Your task to perform on an android device: toggle show notifications on the lock screen Image 0: 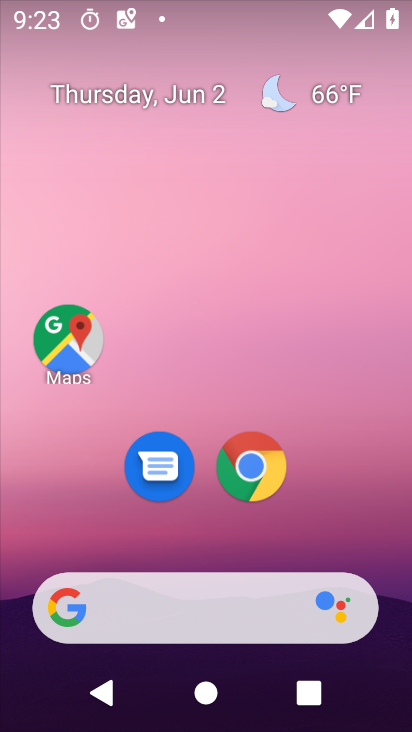
Step 0: press home button
Your task to perform on an android device: toggle show notifications on the lock screen Image 1: 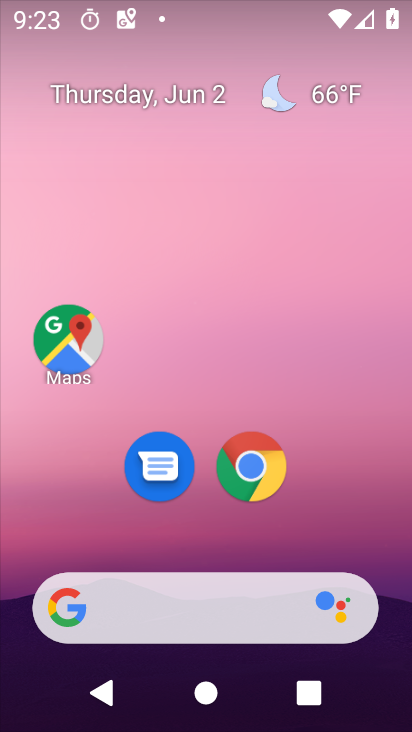
Step 1: drag from (23, 614) to (344, 60)
Your task to perform on an android device: toggle show notifications on the lock screen Image 2: 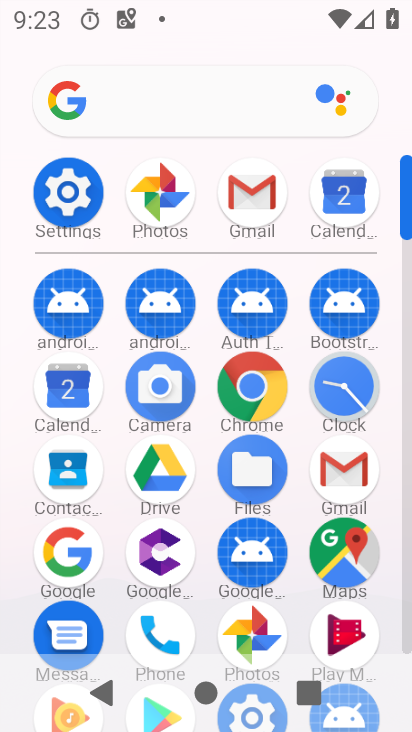
Step 2: click (80, 185)
Your task to perform on an android device: toggle show notifications on the lock screen Image 3: 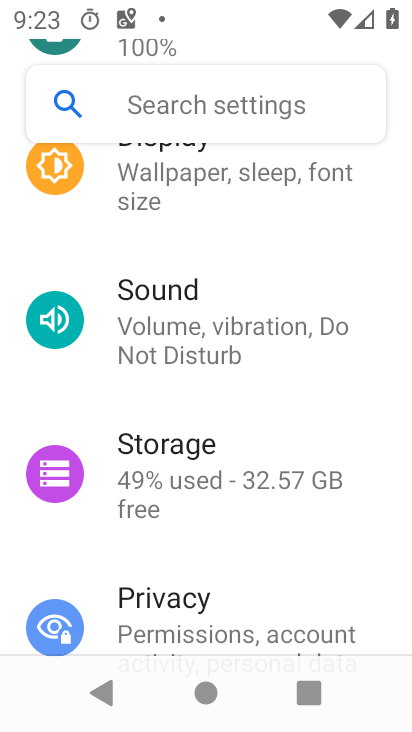
Step 3: drag from (191, 160) to (117, 549)
Your task to perform on an android device: toggle show notifications on the lock screen Image 4: 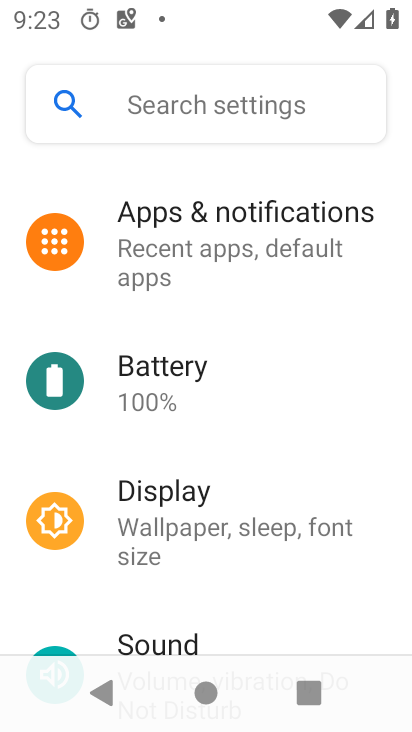
Step 4: click (171, 236)
Your task to perform on an android device: toggle show notifications on the lock screen Image 5: 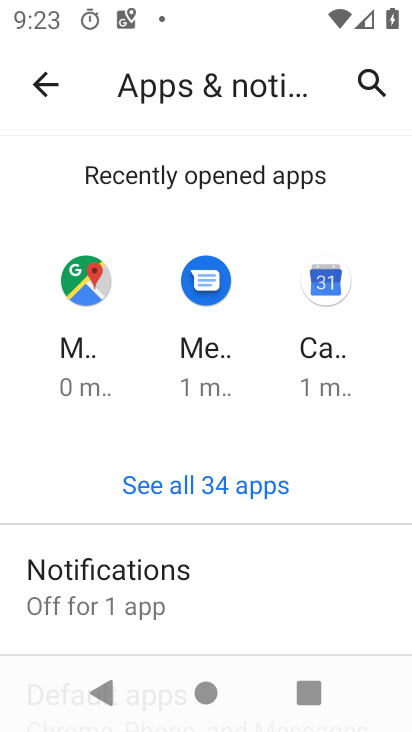
Step 5: click (56, 592)
Your task to perform on an android device: toggle show notifications on the lock screen Image 6: 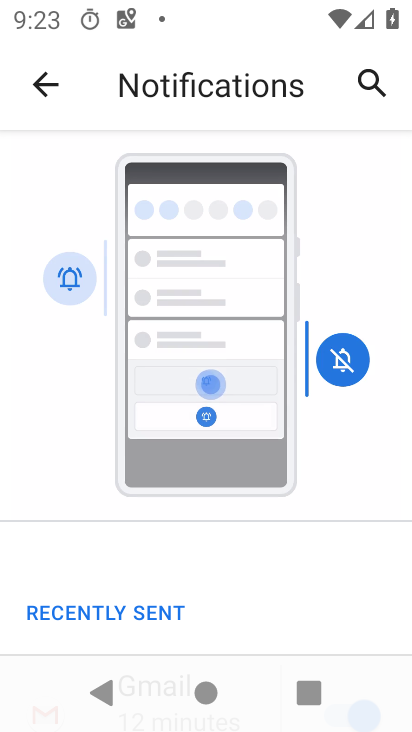
Step 6: drag from (20, 457) to (239, 109)
Your task to perform on an android device: toggle show notifications on the lock screen Image 7: 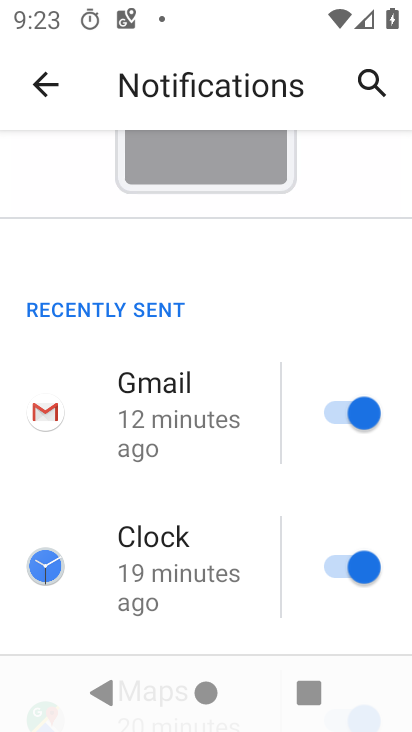
Step 7: drag from (42, 537) to (397, 198)
Your task to perform on an android device: toggle show notifications on the lock screen Image 8: 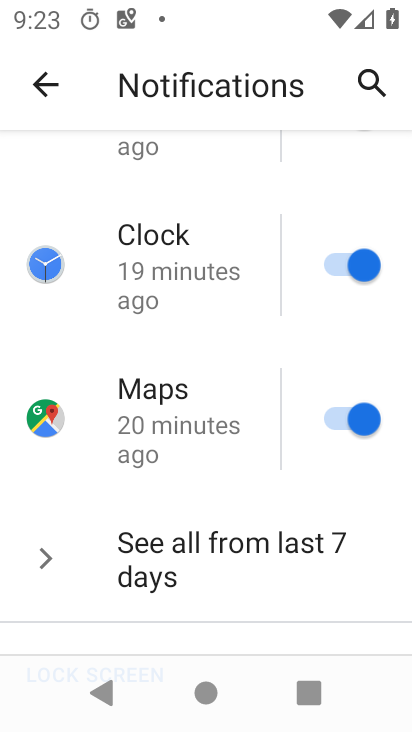
Step 8: drag from (44, 599) to (265, 195)
Your task to perform on an android device: toggle show notifications on the lock screen Image 9: 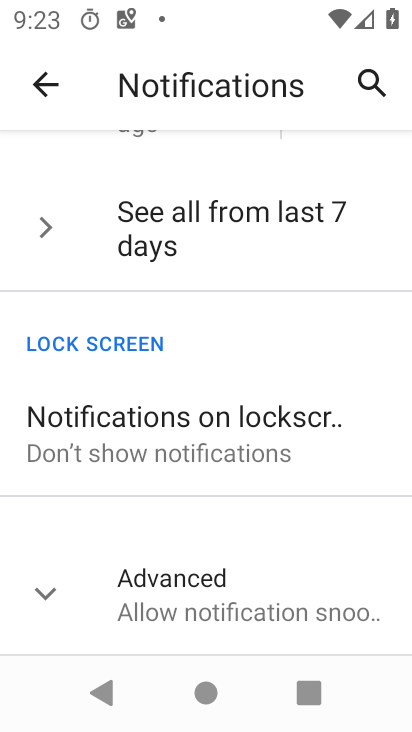
Step 9: click (194, 437)
Your task to perform on an android device: toggle show notifications on the lock screen Image 10: 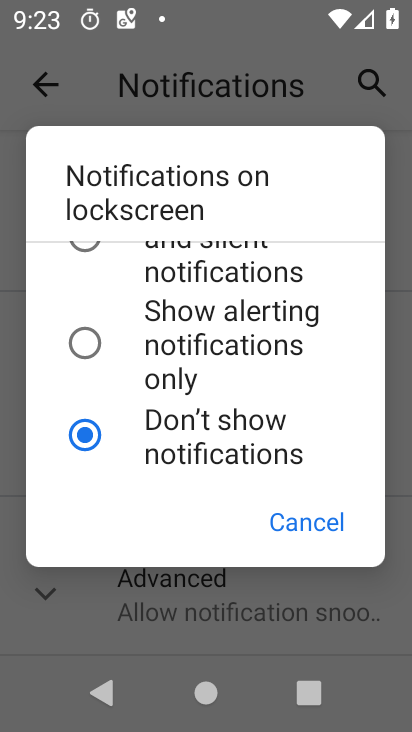
Step 10: drag from (178, 245) to (169, 510)
Your task to perform on an android device: toggle show notifications on the lock screen Image 11: 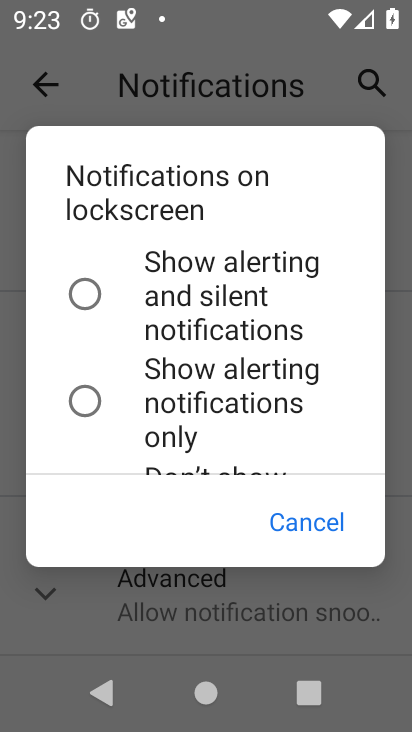
Step 11: click (79, 297)
Your task to perform on an android device: toggle show notifications on the lock screen Image 12: 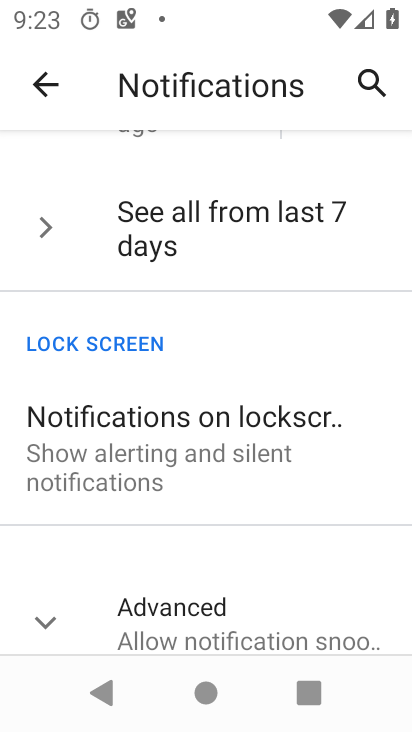
Step 12: task complete